Your task to perform on an android device: allow cookies in the chrome app Image 0: 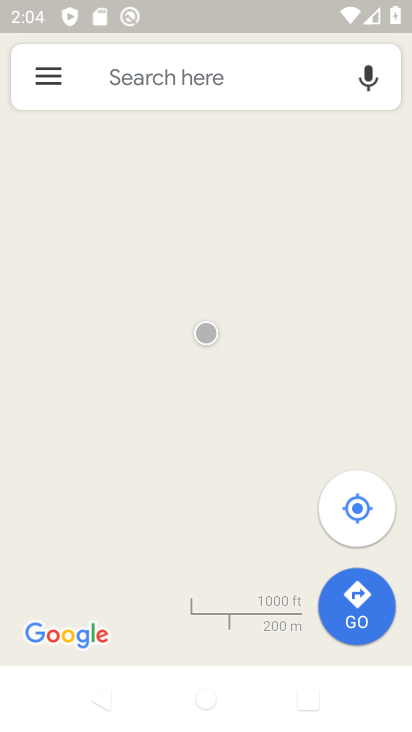
Step 0: press back button
Your task to perform on an android device: allow cookies in the chrome app Image 1: 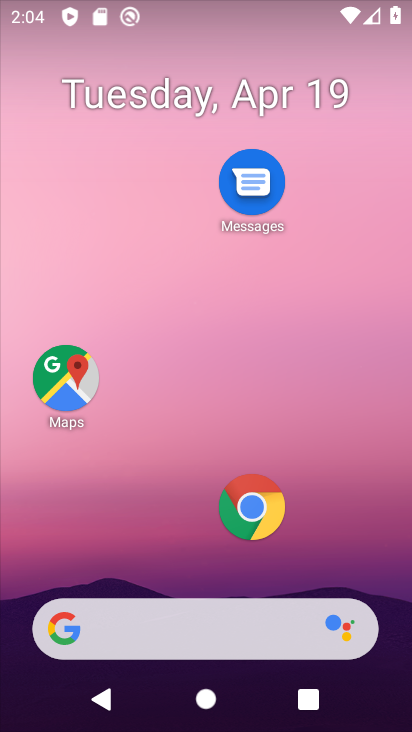
Step 1: click (257, 517)
Your task to perform on an android device: allow cookies in the chrome app Image 2: 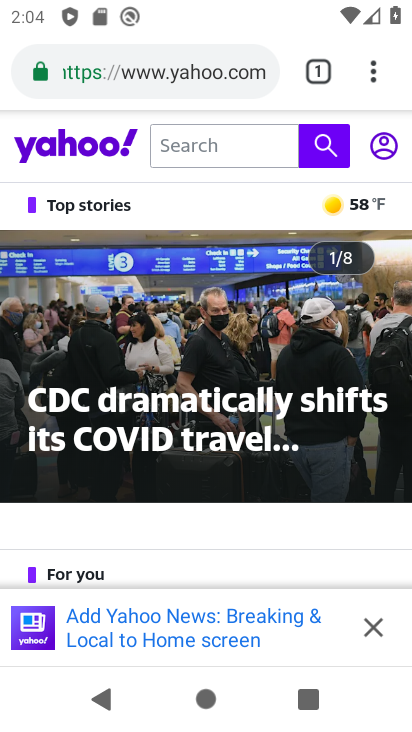
Step 2: click (385, 86)
Your task to perform on an android device: allow cookies in the chrome app Image 3: 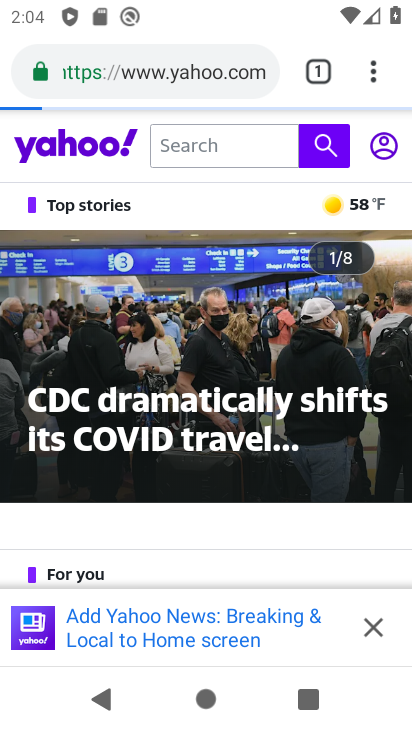
Step 3: drag from (384, 85) to (296, 510)
Your task to perform on an android device: allow cookies in the chrome app Image 4: 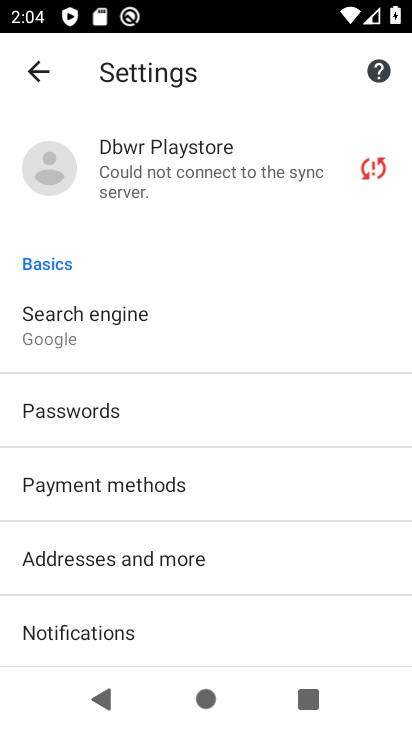
Step 4: drag from (153, 568) to (197, 327)
Your task to perform on an android device: allow cookies in the chrome app Image 5: 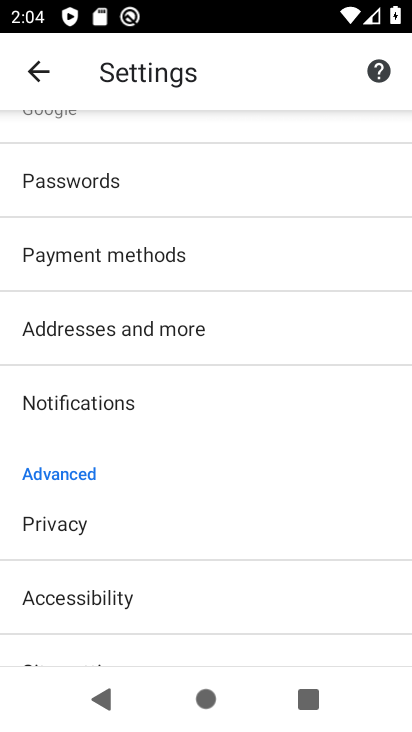
Step 5: drag from (171, 566) to (236, 281)
Your task to perform on an android device: allow cookies in the chrome app Image 6: 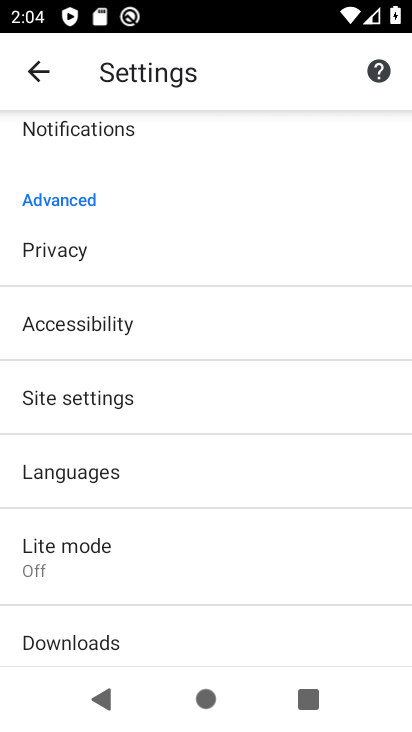
Step 6: drag from (150, 586) to (205, 412)
Your task to perform on an android device: allow cookies in the chrome app Image 7: 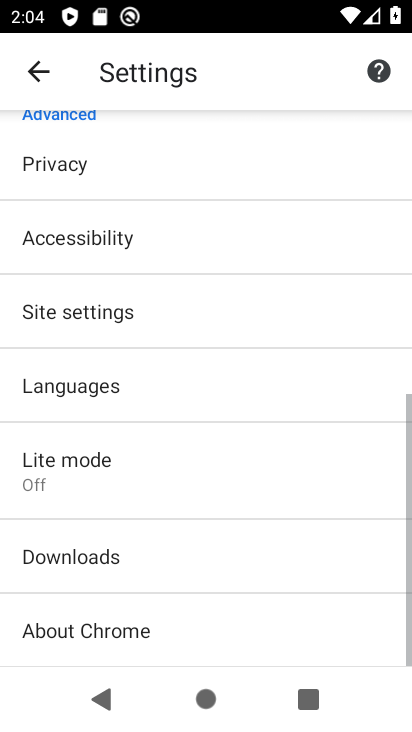
Step 7: click (169, 308)
Your task to perform on an android device: allow cookies in the chrome app Image 8: 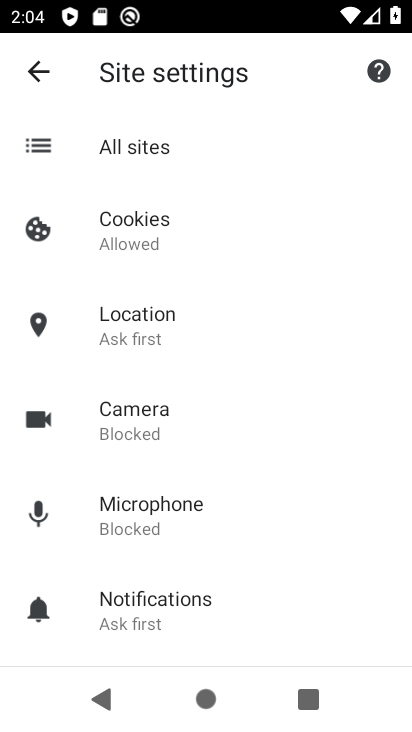
Step 8: click (177, 235)
Your task to perform on an android device: allow cookies in the chrome app Image 9: 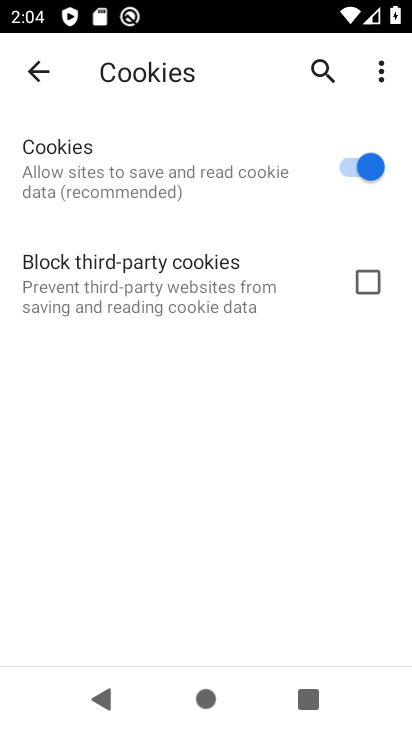
Step 9: task complete